Your task to perform on an android device: check battery use Image 0: 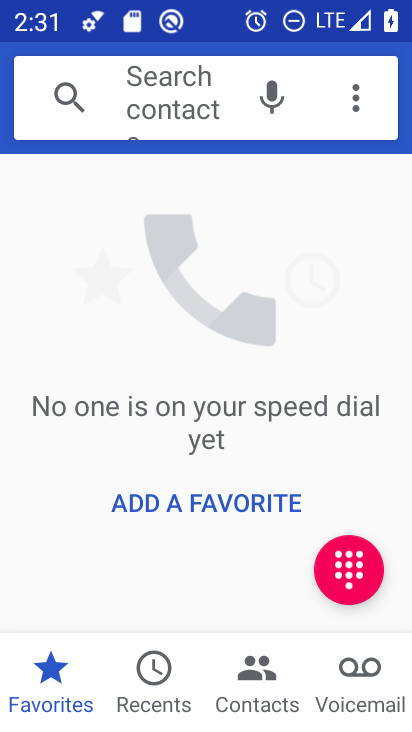
Step 0: press home button
Your task to perform on an android device: check battery use Image 1: 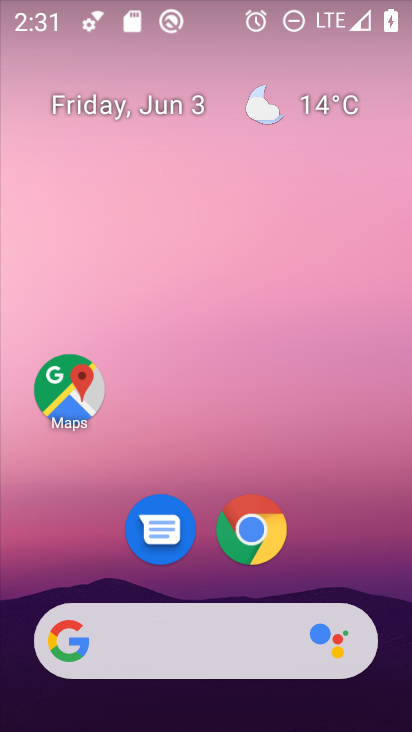
Step 1: drag from (387, 564) to (352, 221)
Your task to perform on an android device: check battery use Image 2: 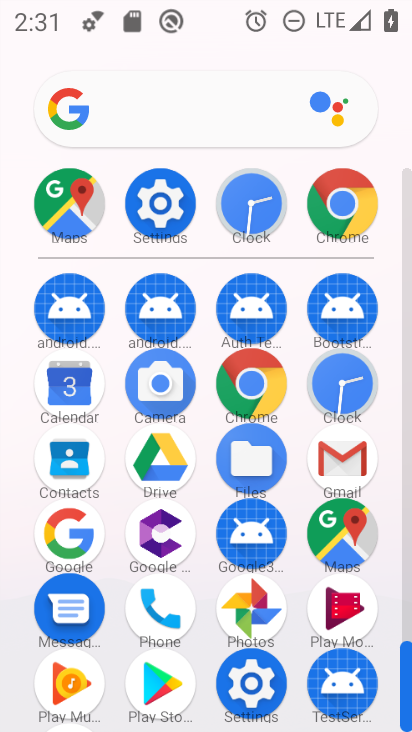
Step 2: click (169, 217)
Your task to perform on an android device: check battery use Image 3: 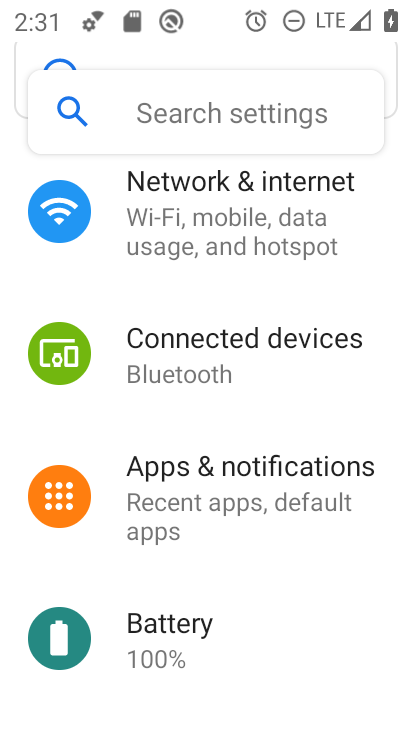
Step 3: drag from (356, 282) to (354, 519)
Your task to perform on an android device: check battery use Image 4: 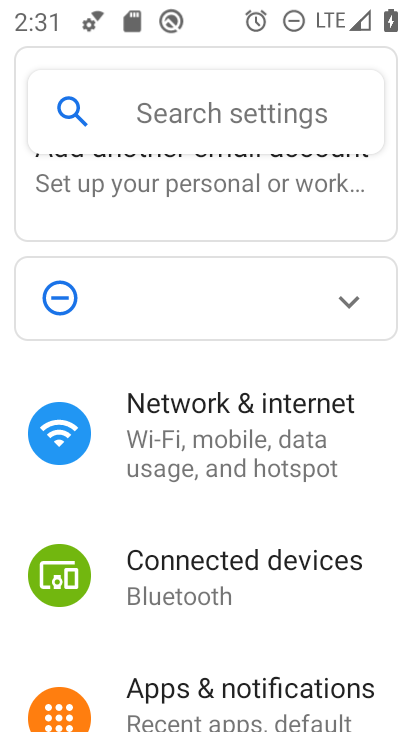
Step 4: drag from (379, 358) to (376, 605)
Your task to perform on an android device: check battery use Image 5: 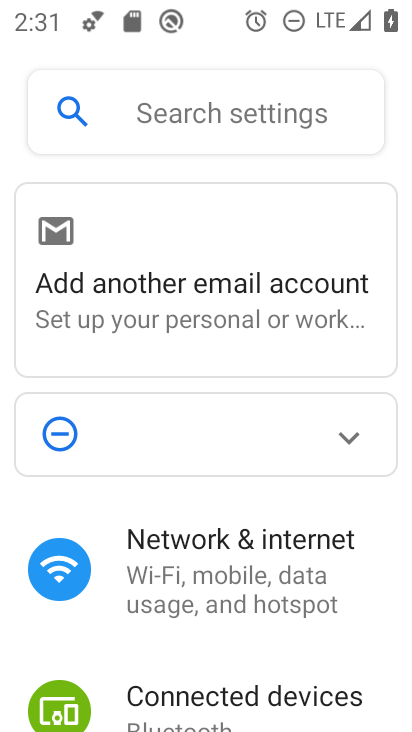
Step 5: drag from (372, 605) to (385, 447)
Your task to perform on an android device: check battery use Image 6: 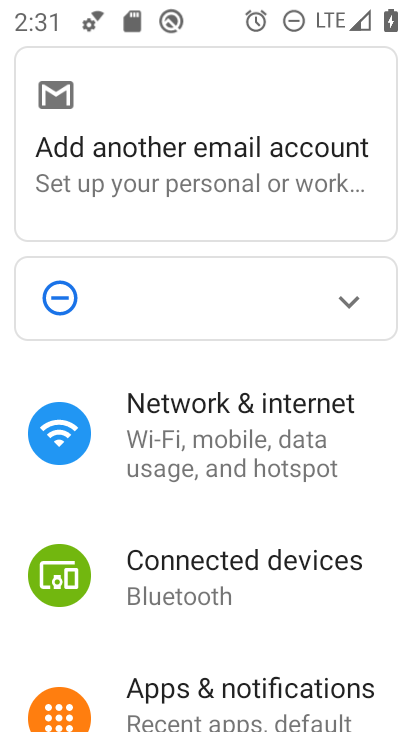
Step 6: drag from (365, 644) to (375, 517)
Your task to perform on an android device: check battery use Image 7: 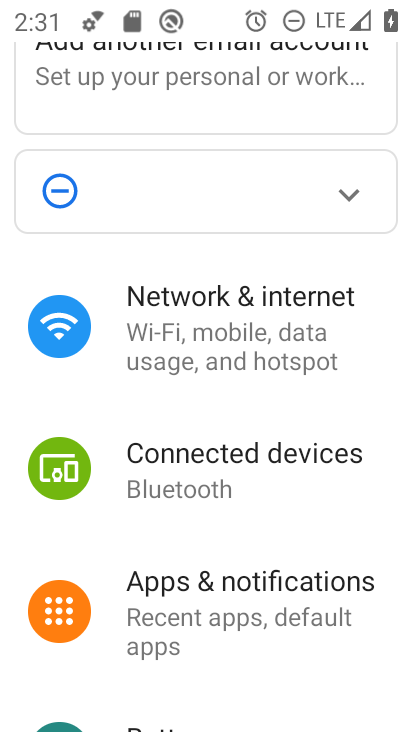
Step 7: drag from (365, 638) to (365, 498)
Your task to perform on an android device: check battery use Image 8: 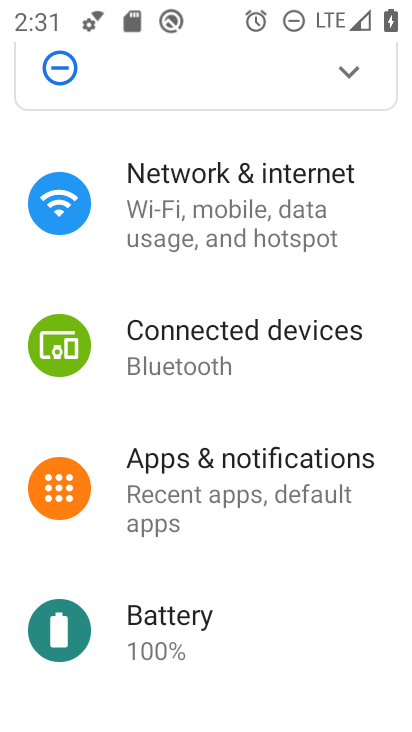
Step 8: drag from (358, 637) to (361, 498)
Your task to perform on an android device: check battery use Image 9: 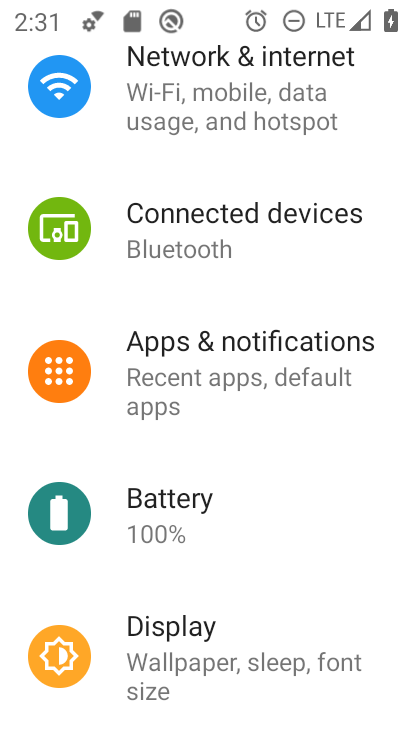
Step 9: drag from (351, 588) to (352, 436)
Your task to perform on an android device: check battery use Image 10: 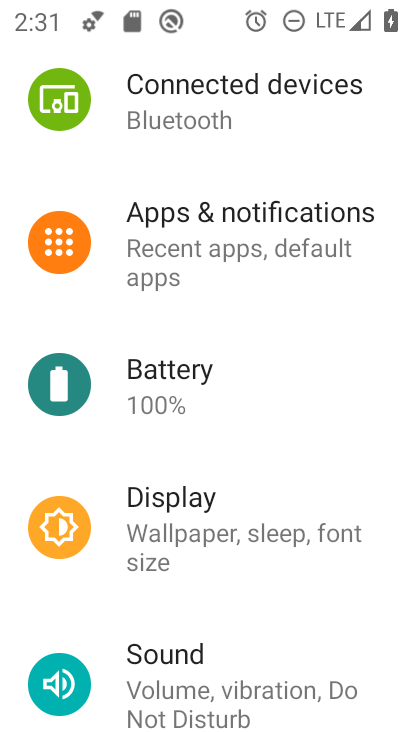
Step 10: drag from (351, 588) to (350, 414)
Your task to perform on an android device: check battery use Image 11: 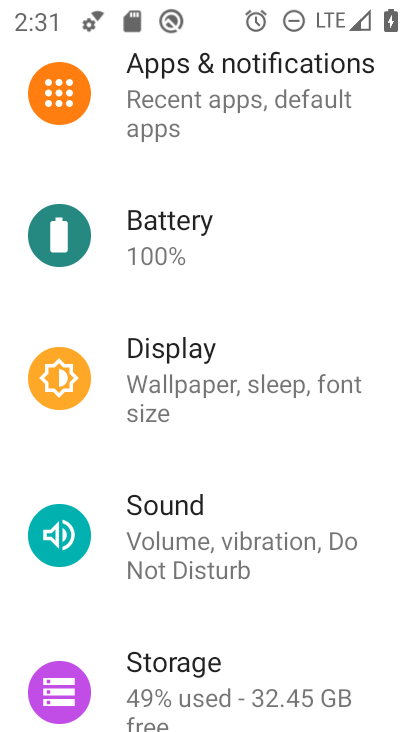
Step 11: drag from (373, 581) to (377, 449)
Your task to perform on an android device: check battery use Image 12: 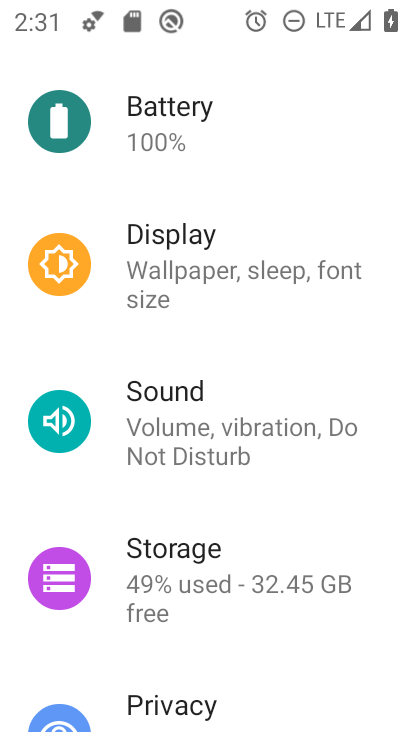
Step 12: click (220, 137)
Your task to perform on an android device: check battery use Image 13: 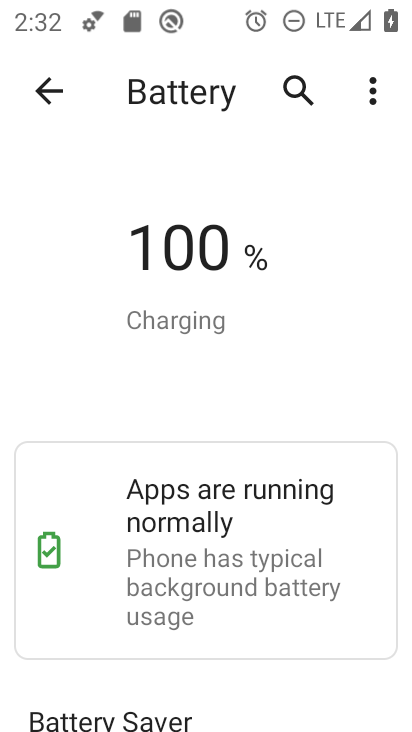
Step 13: click (376, 98)
Your task to perform on an android device: check battery use Image 14: 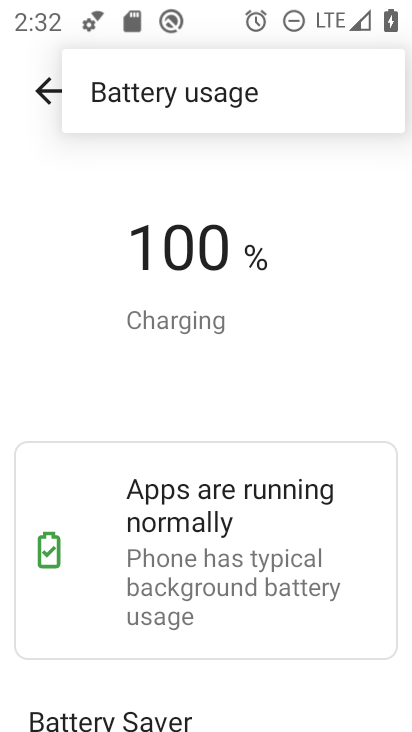
Step 14: click (266, 94)
Your task to perform on an android device: check battery use Image 15: 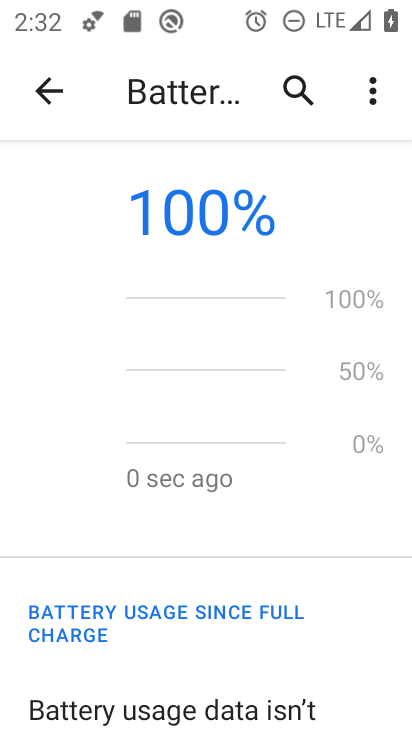
Step 15: task complete